Your task to perform on an android device: Clear the cart on bestbuy. Add usb-b to the cart on bestbuy, then select checkout. Image 0: 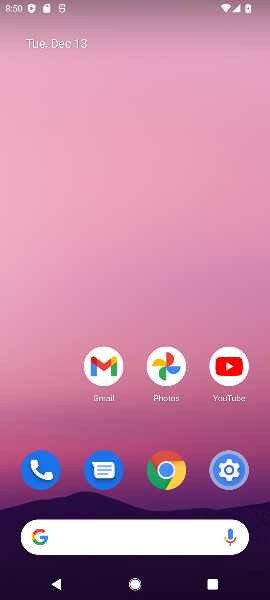
Step 0: press home button
Your task to perform on an android device: Clear the cart on bestbuy. Add usb-b to the cart on bestbuy, then select checkout. Image 1: 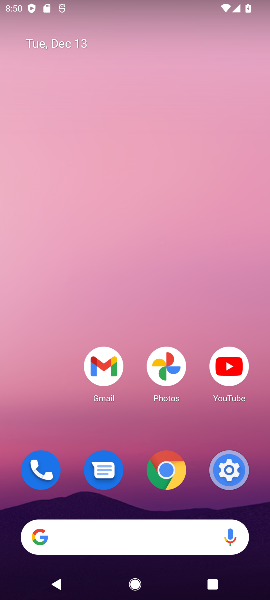
Step 1: click (64, 539)
Your task to perform on an android device: Clear the cart on bestbuy. Add usb-b to the cart on bestbuy, then select checkout. Image 2: 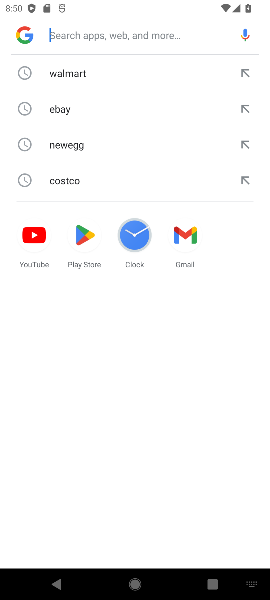
Step 2: type "bestbuy"
Your task to perform on an android device: Clear the cart on bestbuy. Add usb-b to the cart on bestbuy, then select checkout. Image 3: 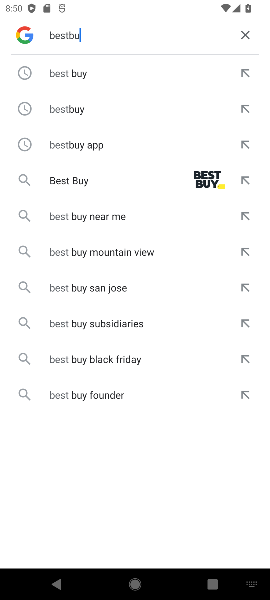
Step 3: press enter
Your task to perform on an android device: Clear the cart on bestbuy. Add usb-b to the cart on bestbuy, then select checkout. Image 4: 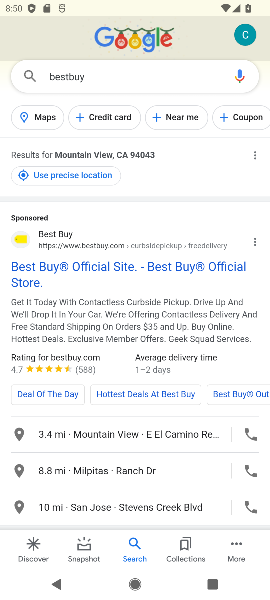
Step 4: click (117, 268)
Your task to perform on an android device: Clear the cart on bestbuy. Add usb-b to the cart on bestbuy, then select checkout. Image 5: 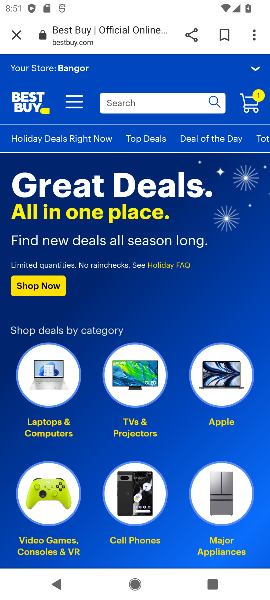
Step 5: click (253, 96)
Your task to perform on an android device: Clear the cart on bestbuy. Add usb-b to the cart on bestbuy, then select checkout. Image 6: 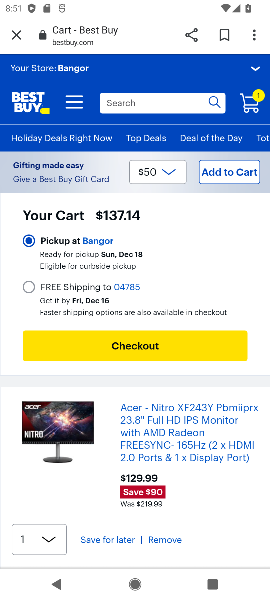
Step 6: drag from (120, 465) to (146, 251)
Your task to perform on an android device: Clear the cart on bestbuy. Add usb-b to the cart on bestbuy, then select checkout. Image 7: 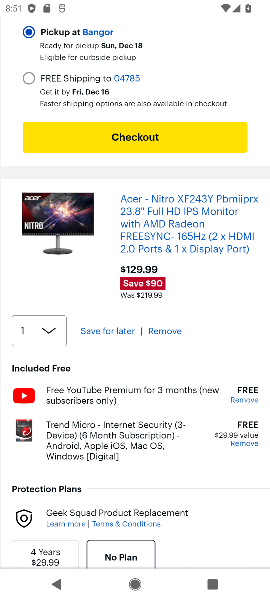
Step 7: click (161, 330)
Your task to perform on an android device: Clear the cart on bestbuy. Add usb-b to the cart on bestbuy, then select checkout. Image 8: 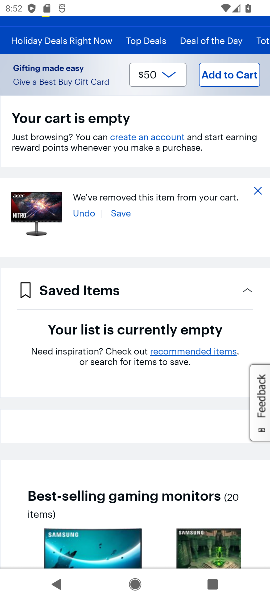
Step 8: press back button
Your task to perform on an android device: Clear the cart on bestbuy. Add usb-b to the cart on bestbuy, then select checkout. Image 9: 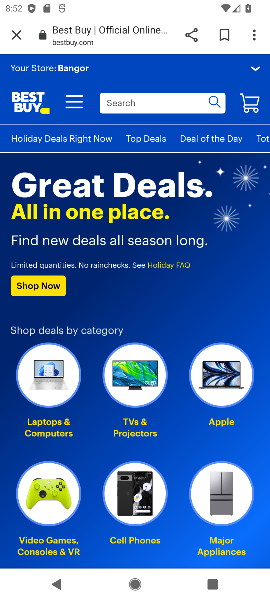
Step 9: click (142, 98)
Your task to perform on an android device: Clear the cart on bestbuy. Add usb-b to the cart on bestbuy, then select checkout. Image 10: 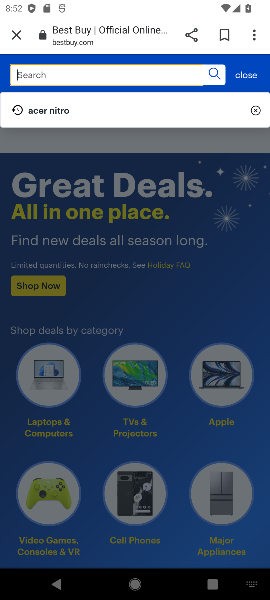
Step 10: type "usb-b"
Your task to perform on an android device: Clear the cart on bestbuy. Add usb-b to the cart on bestbuy, then select checkout. Image 11: 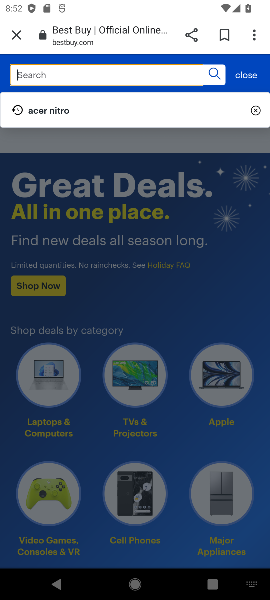
Step 11: press enter
Your task to perform on an android device: Clear the cart on bestbuy. Add usb-b to the cart on bestbuy, then select checkout. Image 12: 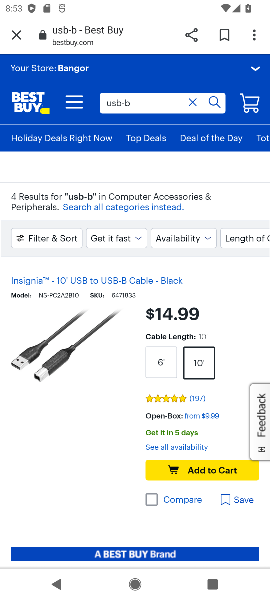
Step 12: click (202, 471)
Your task to perform on an android device: Clear the cart on bestbuy. Add usb-b to the cart on bestbuy, then select checkout. Image 13: 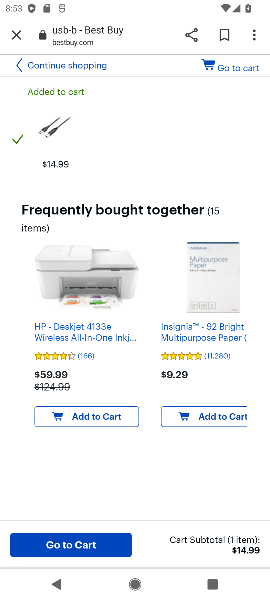
Step 13: click (50, 547)
Your task to perform on an android device: Clear the cart on bestbuy. Add usb-b to the cart on bestbuy, then select checkout. Image 14: 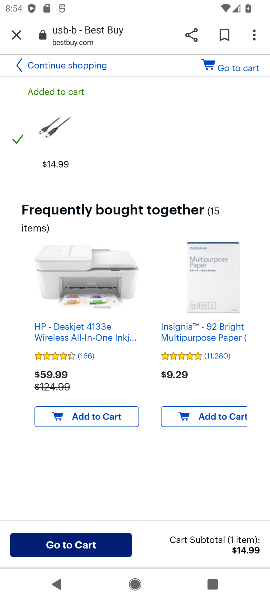
Step 14: task complete